Your task to perform on an android device: Go to location settings Image 0: 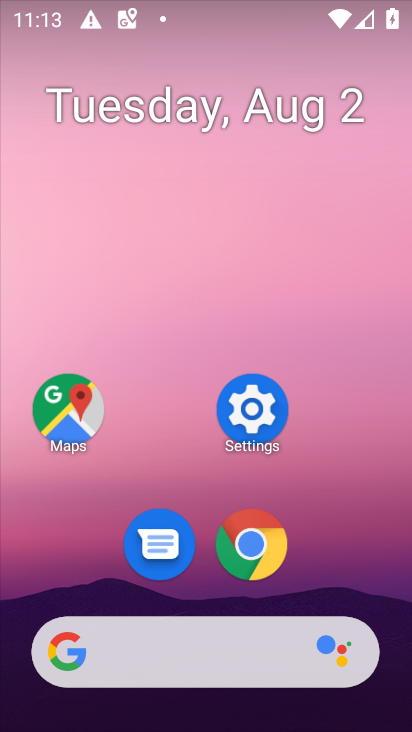
Step 0: click (254, 412)
Your task to perform on an android device: Go to location settings Image 1: 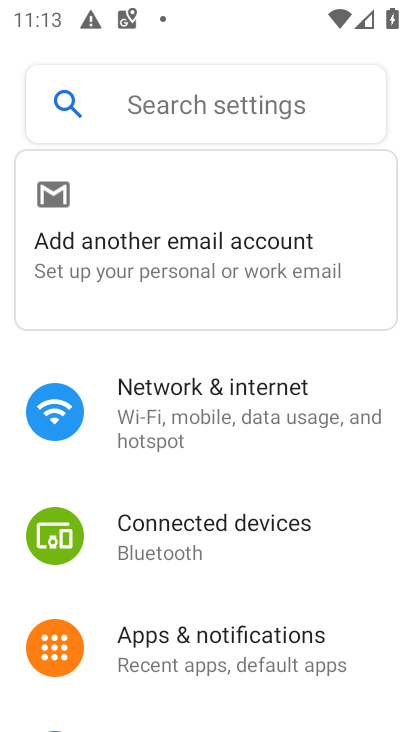
Step 1: drag from (203, 620) to (362, 90)
Your task to perform on an android device: Go to location settings Image 2: 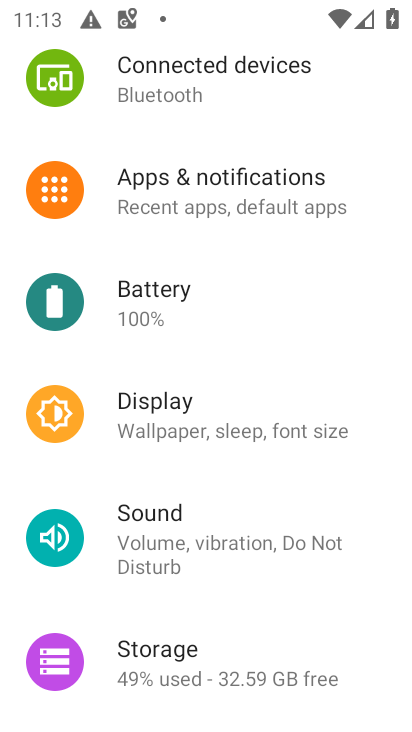
Step 2: drag from (227, 610) to (312, 51)
Your task to perform on an android device: Go to location settings Image 3: 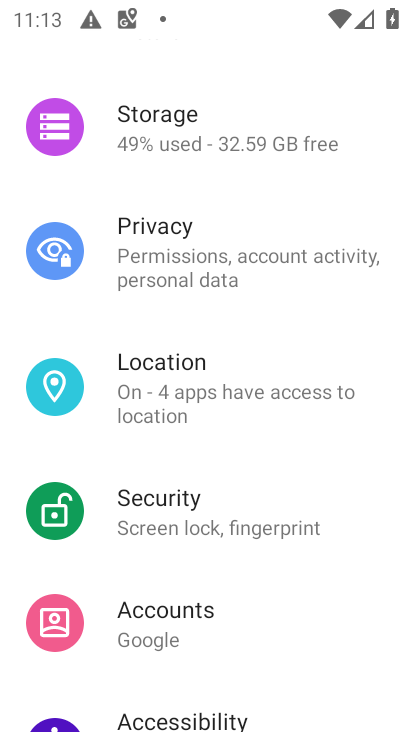
Step 3: click (189, 371)
Your task to perform on an android device: Go to location settings Image 4: 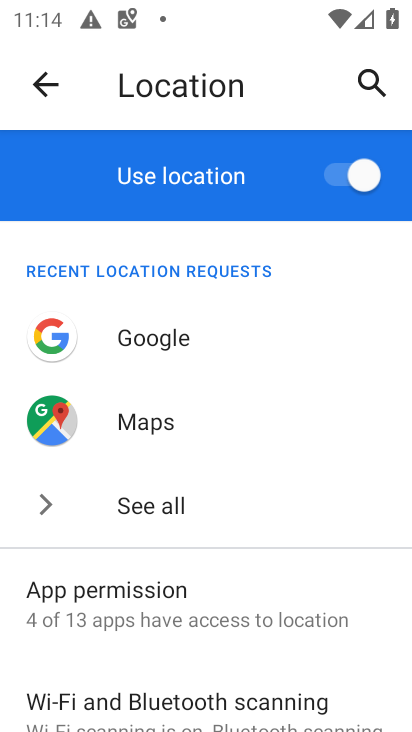
Step 4: task complete